Your task to perform on an android device: Open the web browser Image 0: 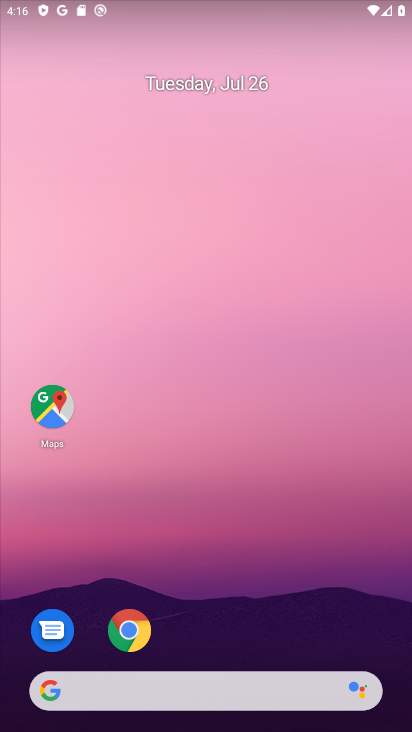
Step 0: drag from (297, 598) to (252, 27)
Your task to perform on an android device: Open the web browser Image 1: 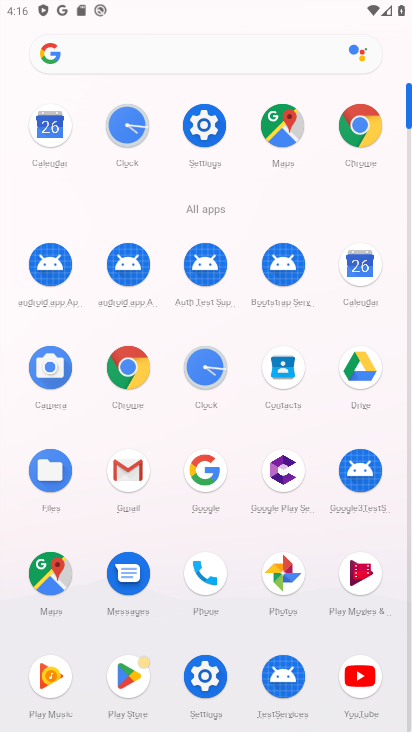
Step 1: click (364, 124)
Your task to perform on an android device: Open the web browser Image 2: 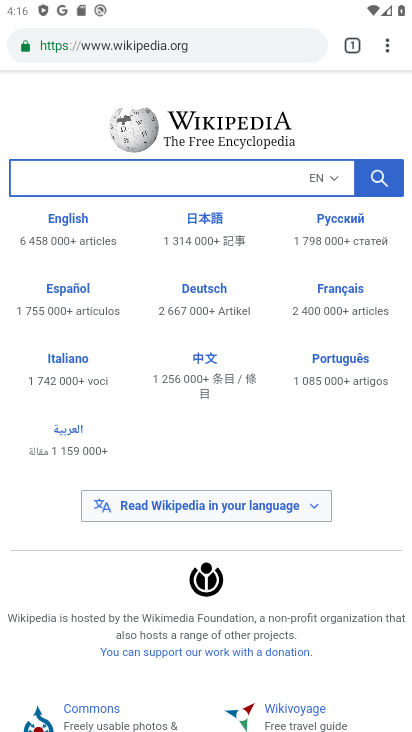
Step 2: task complete